Your task to perform on an android device: Turn on the flashlight Image 0: 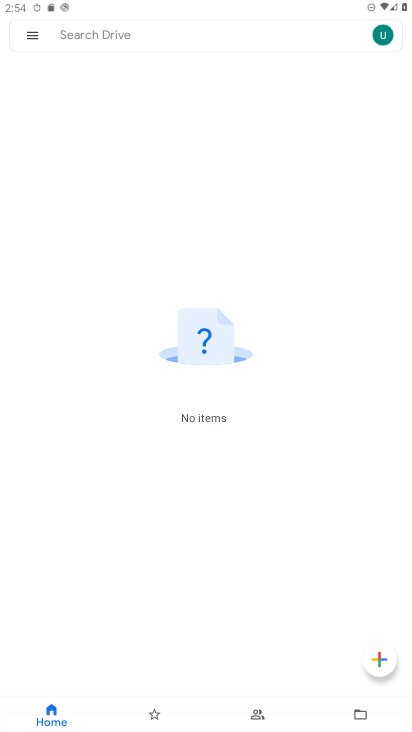
Step 0: press home button
Your task to perform on an android device: Turn on the flashlight Image 1: 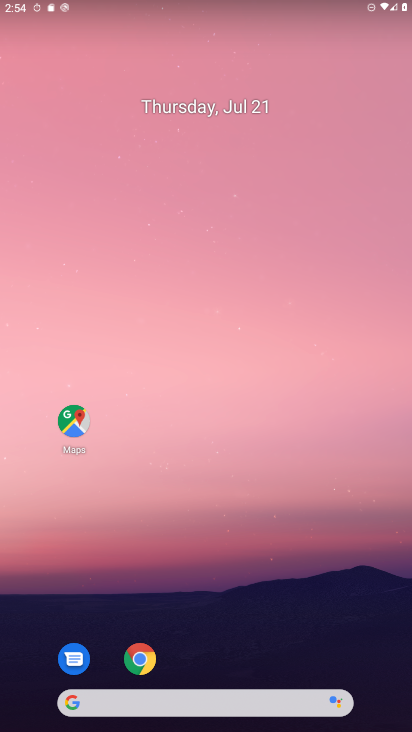
Step 1: drag from (59, 428) to (240, 1)
Your task to perform on an android device: Turn on the flashlight Image 2: 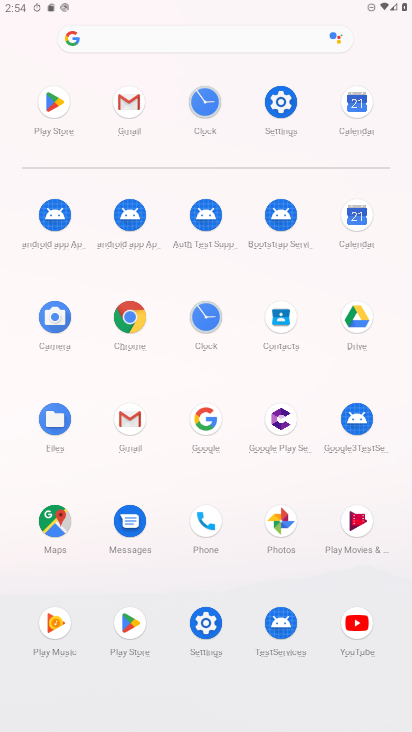
Step 2: click (266, 98)
Your task to perform on an android device: Turn on the flashlight Image 3: 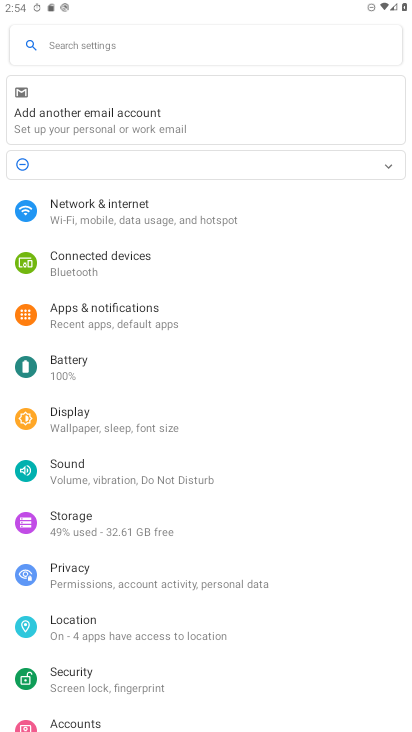
Step 3: task complete